Your task to perform on an android device: change text size in settings app Image 0: 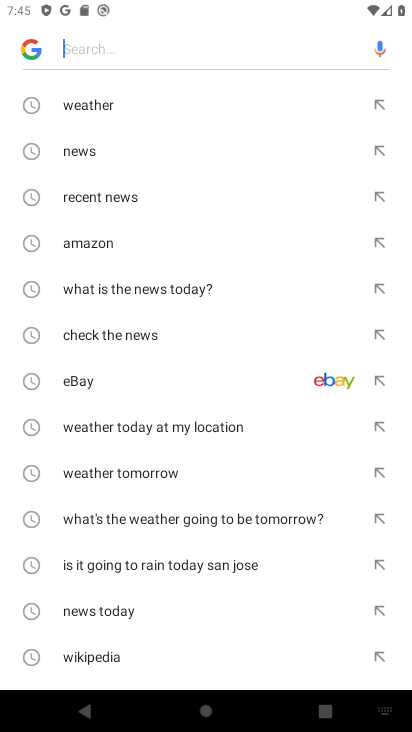
Step 0: press home button
Your task to perform on an android device: change text size in settings app Image 1: 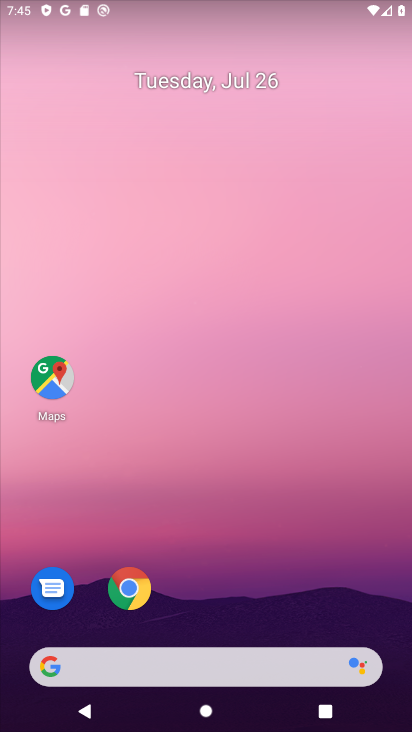
Step 1: drag from (232, 645) to (272, 164)
Your task to perform on an android device: change text size in settings app Image 2: 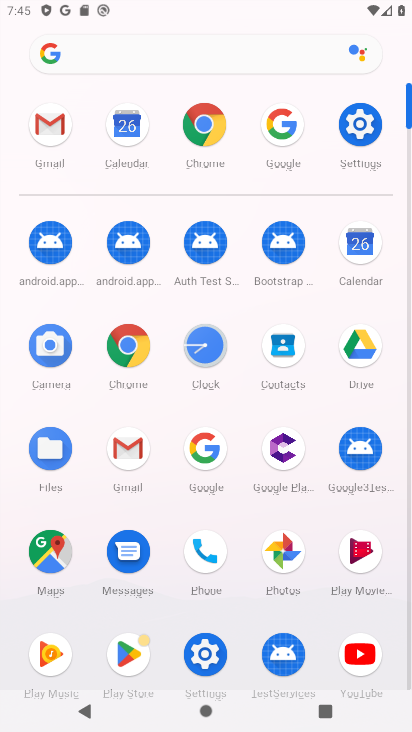
Step 2: click (344, 154)
Your task to perform on an android device: change text size in settings app Image 3: 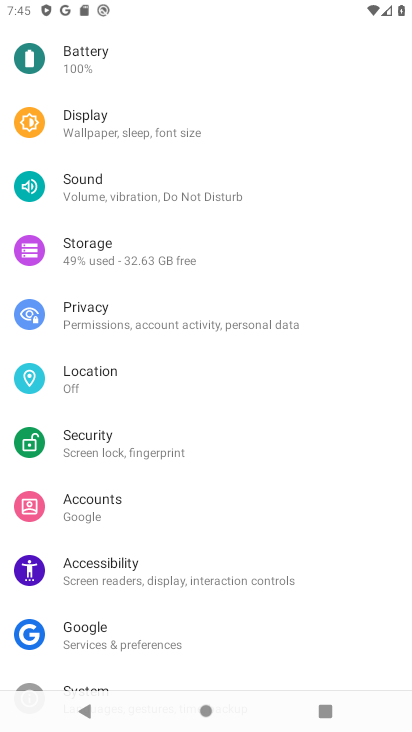
Step 3: click (174, 264)
Your task to perform on an android device: change text size in settings app Image 4: 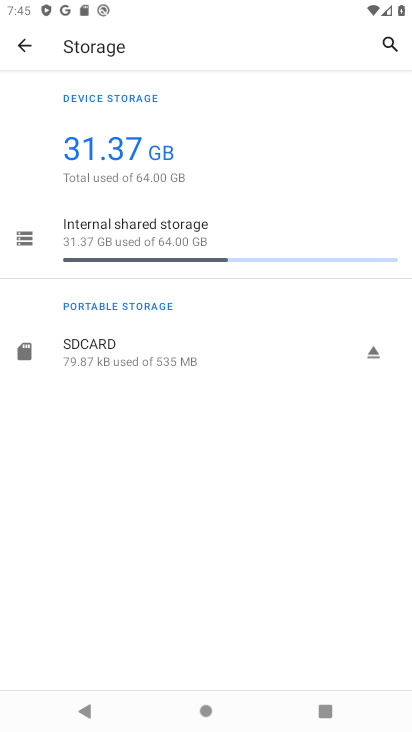
Step 4: click (39, 52)
Your task to perform on an android device: change text size in settings app Image 5: 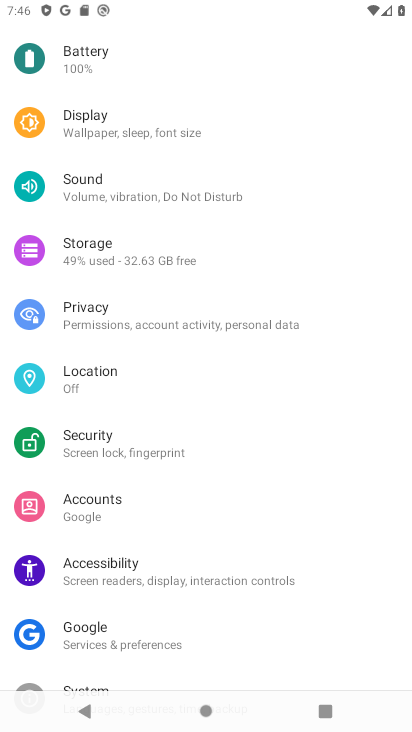
Step 5: click (127, 133)
Your task to perform on an android device: change text size in settings app Image 6: 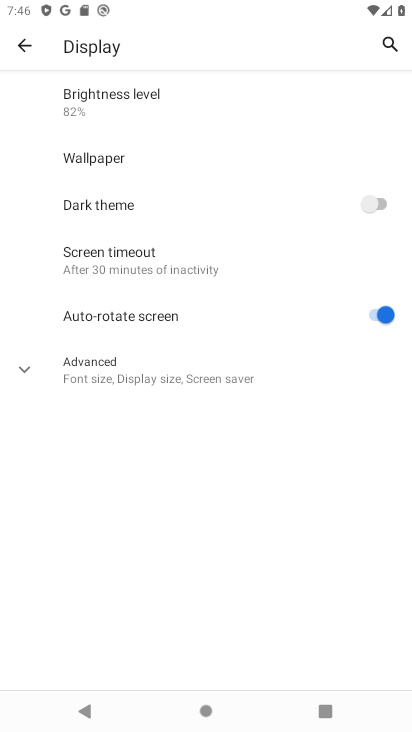
Step 6: click (105, 360)
Your task to perform on an android device: change text size in settings app Image 7: 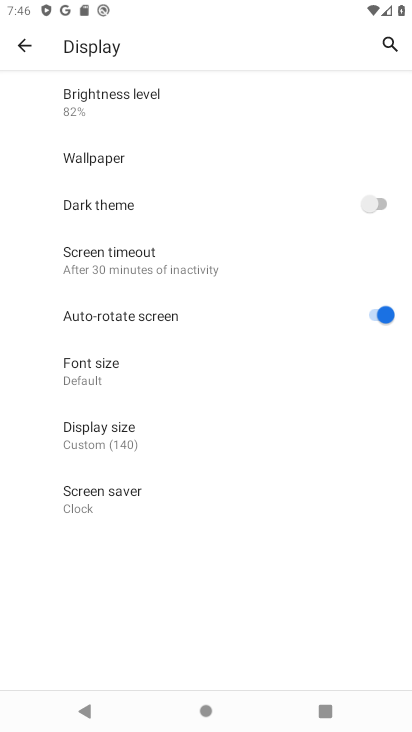
Step 7: click (113, 371)
Your task to perform on an android device: change text size in settings app Image 8: 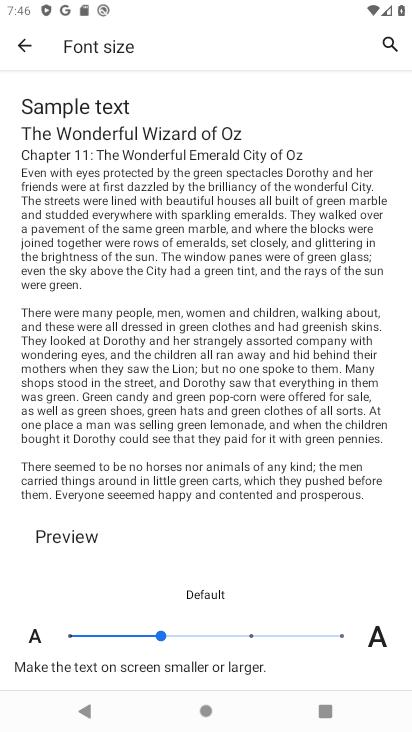
Step 8: click (248, 635)
Your task to perform on an android device: change text size in settings app Image 9: 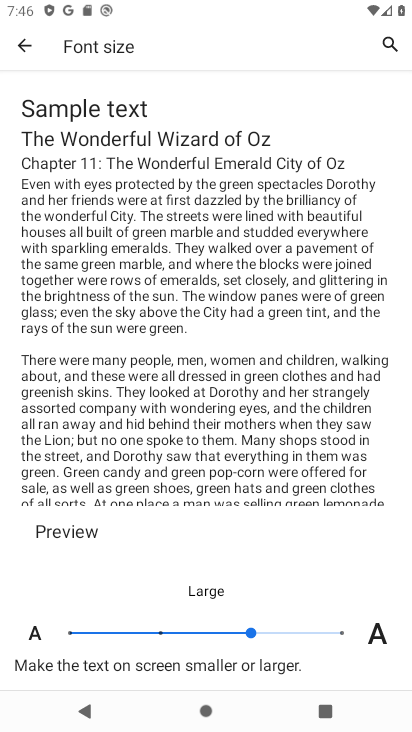
Step 9: task complete